Your task to perform on an android device: Go to accessibility settings Image 0: 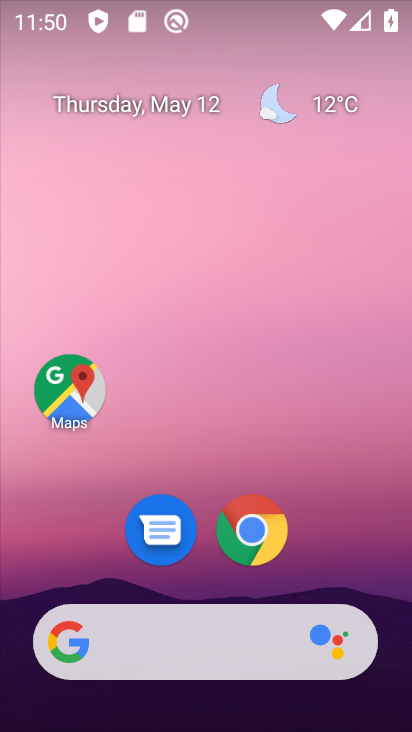
Step 0: click (383, 450)
Your task to perform on an android device: Go to accessibility settings Image 1: 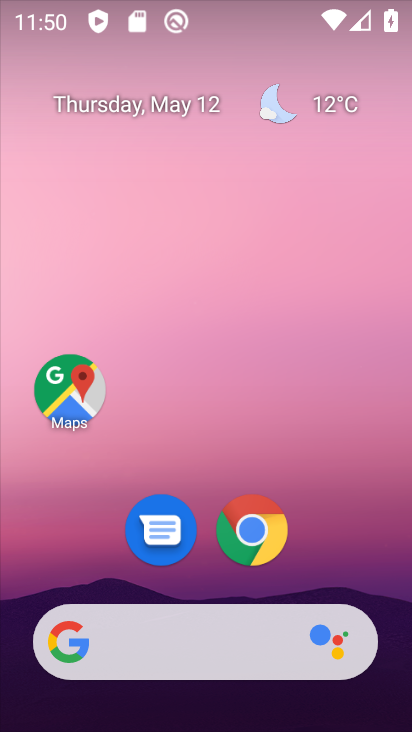
Step 1: drag from (372, 495) to (334, 168)
Your task to perform on an android device: Go to accessibility settings Image 2: 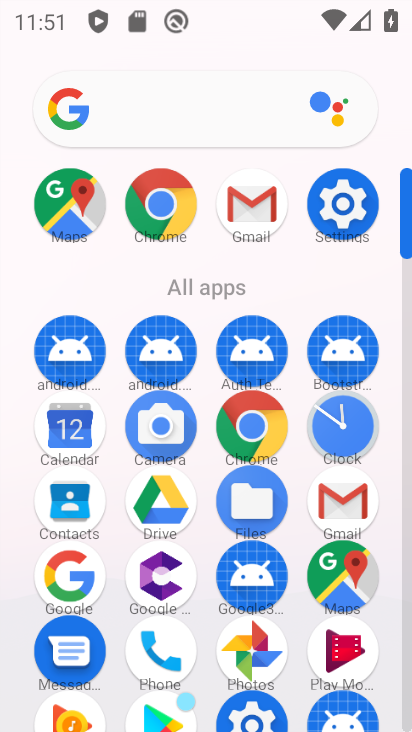
Step 2: click (361, 210)
Your task to perform on an android device: Go to accessibility settings Image 3: 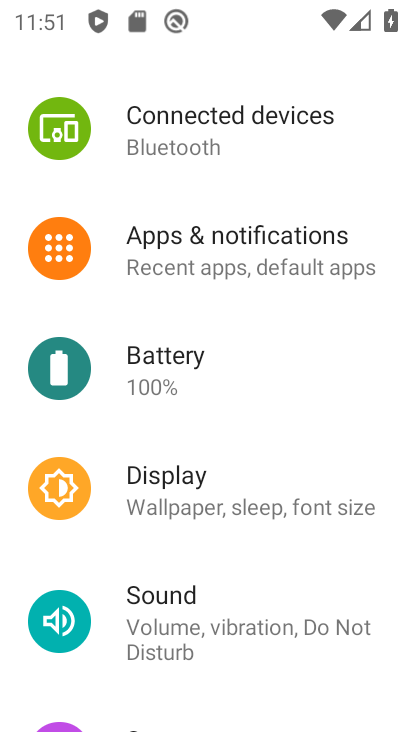
Step 3: drag from (325, 540) to (314, 140)
Your task to perform on an android device: Go to accessibility settings Image 4: 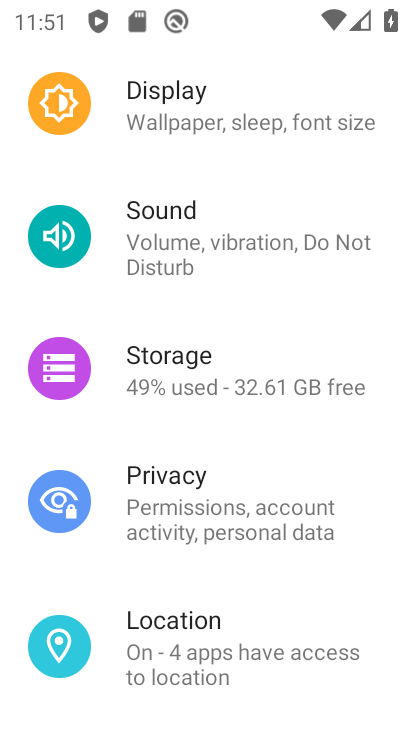
Step 4: drag from (348, 506) to (338, 254)
Your task to perform on an android device: Go to accessibility settings Image 5: 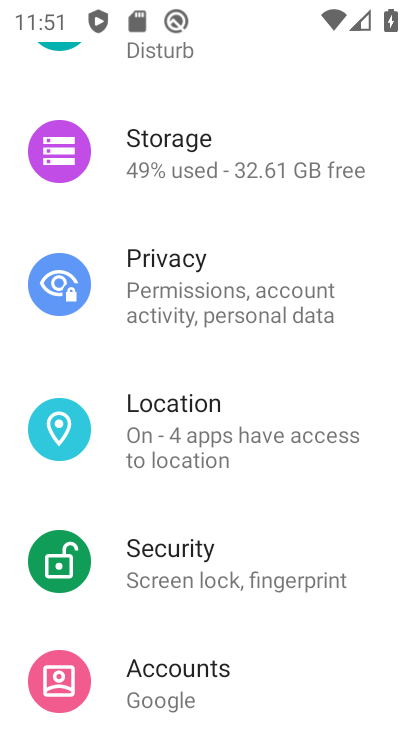
Step 5: drag from (327, 589) to (299, 277)
Your task to perform on an android device: Go to accessibility settings Image 6: 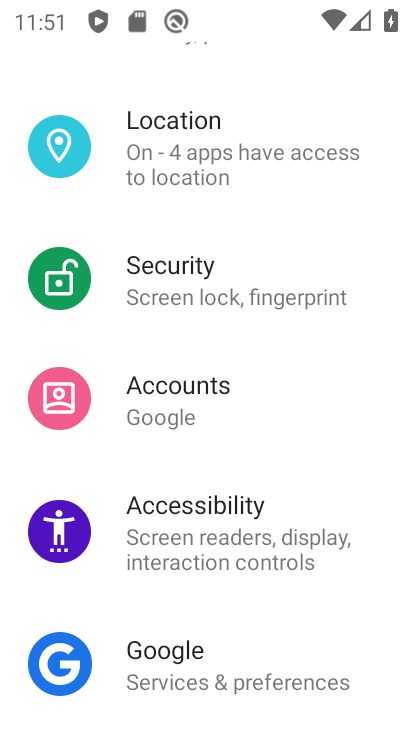
Step 6: click (299, 555)
Your task to perform on an android device: Go to accessibility settings Image 7: 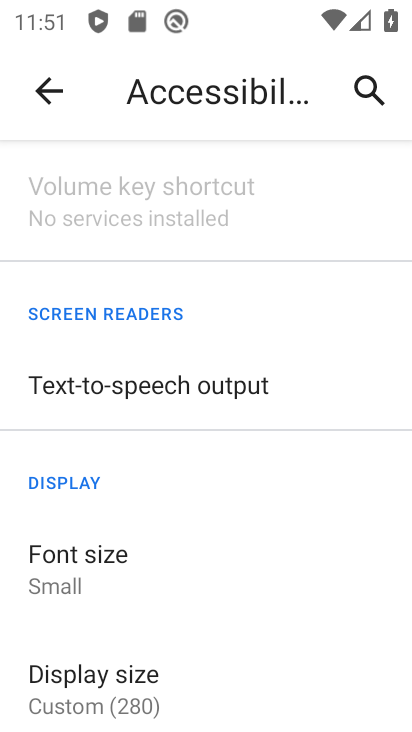
Step 7: task complete